Your task to perform on an android device: turn off sleep mode Image 0: 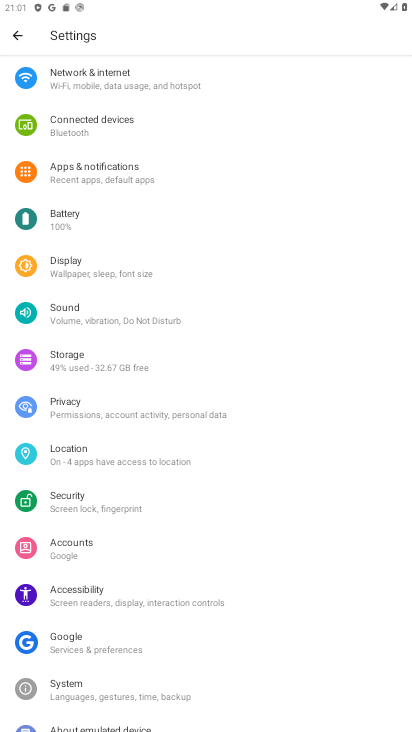
Step 0: click (20, 254)
Your task to perform on an android device: turn off sleep mode Image 1: 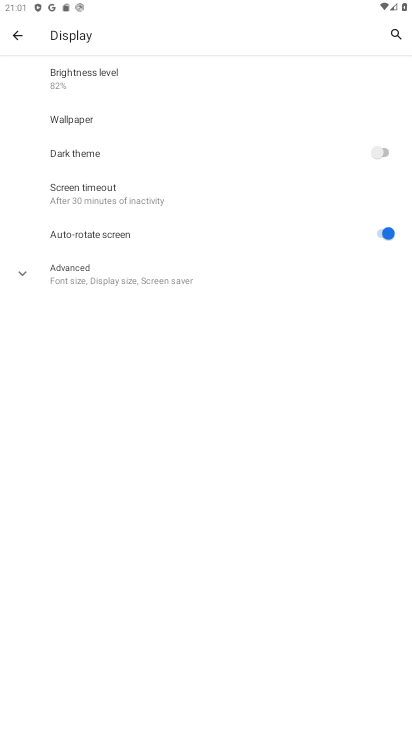
Step 1: task complete